Your task to perform on an android device: What's the news in Bolivia? Image 0: 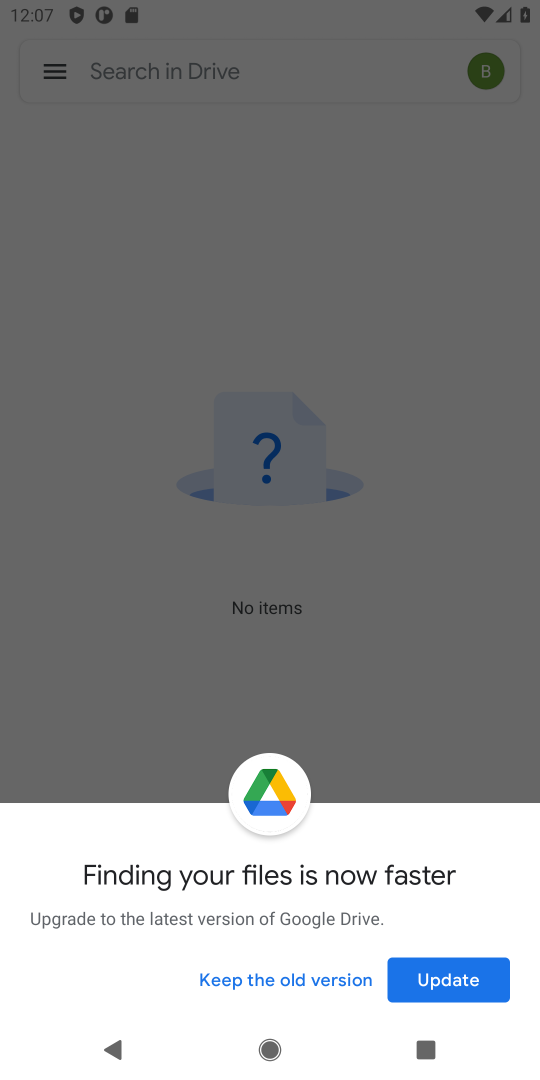
Step 0: press home button
Your task to perform on an android device: What's the news in Bolivia? Image 1: 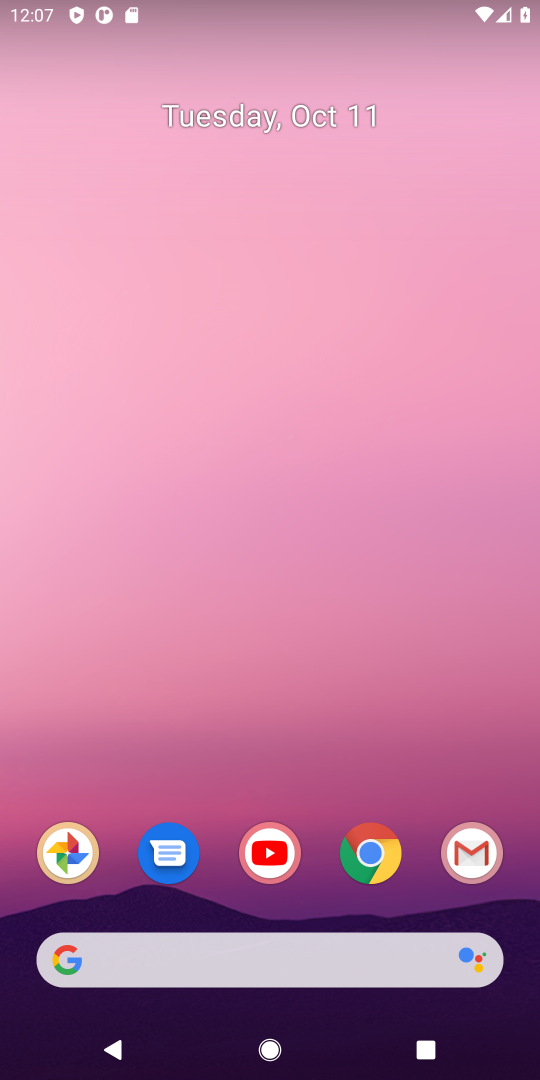
Step 1: drag from (274, 854) to (264, 33)
Your task to perform on an android device: What's the news in Bolivia? Image 2: 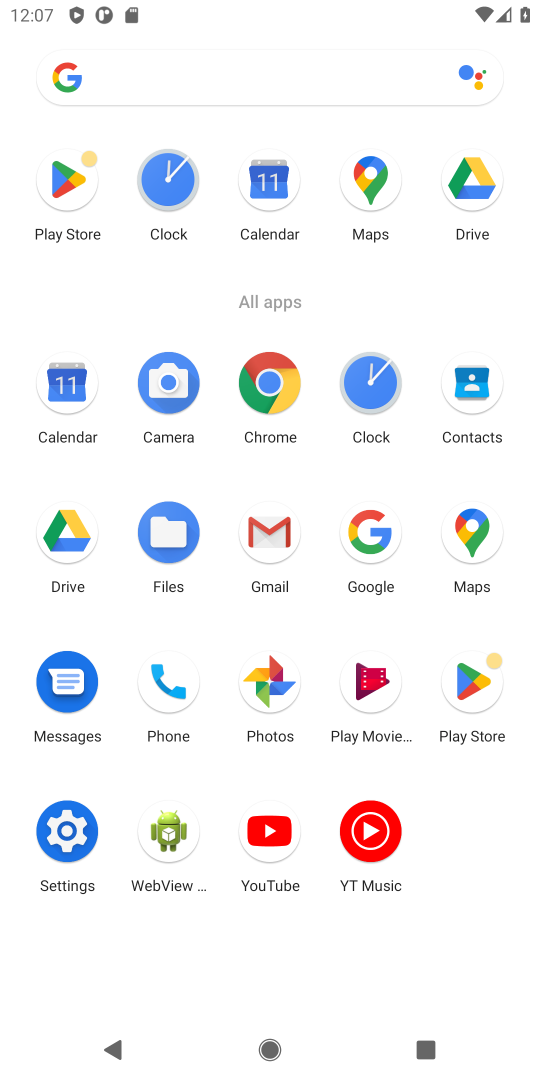
Step 2: click (279, 389)
Your task to perform on an android device: What's the news in Bolivia? Image 3: 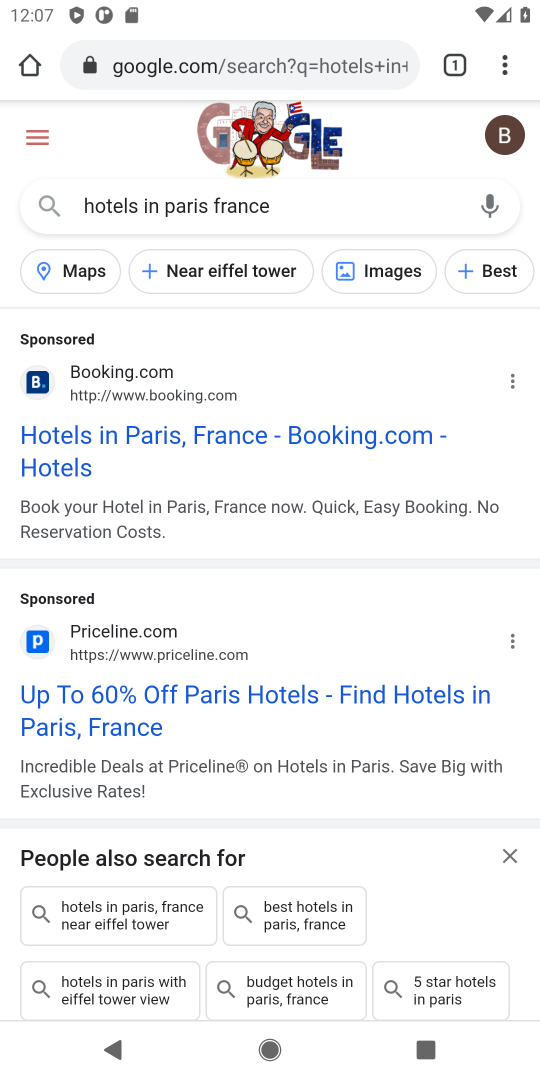
Step 3: click (222, 55)
Your task to perform on an android device: What's the news in Bolivia? Image 4: 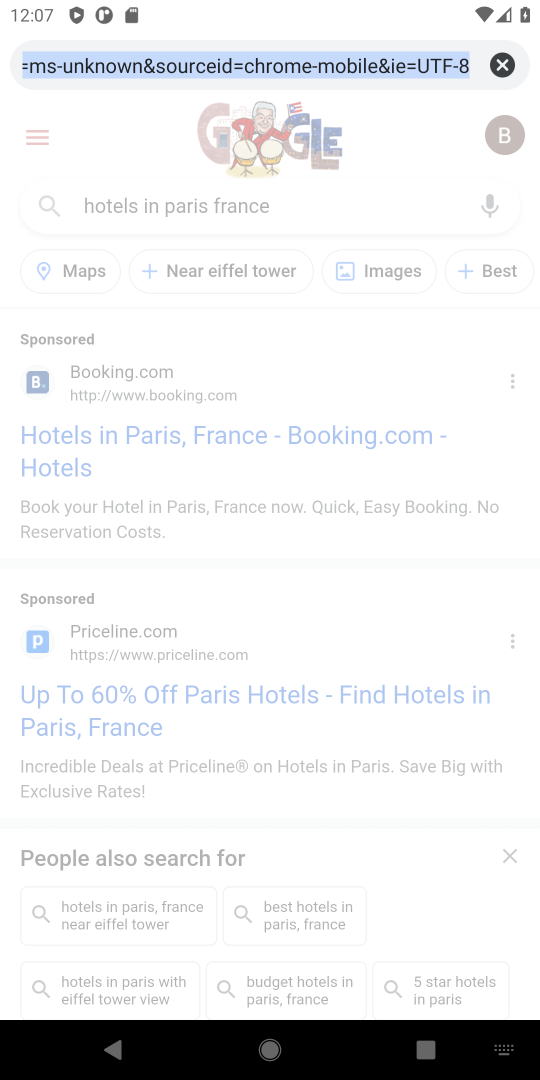
Step 4: type "What's the news in Bolivia?"
Your task to perform on an android device: What's the news in Bolivia? Image 5: 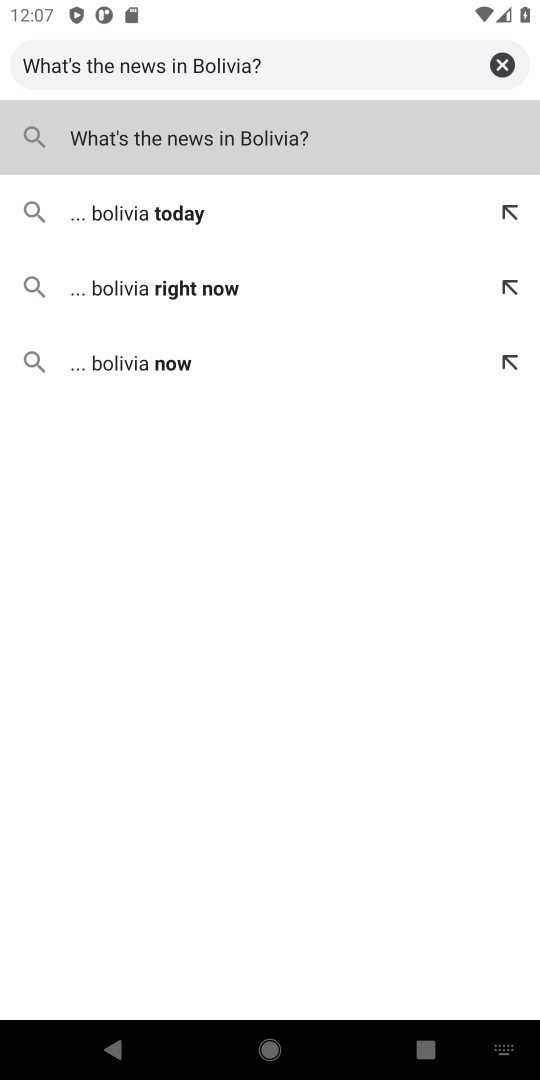
Step 5: type ""
Your task to perform on an android device: What's the news in Bolivia? Image 6: 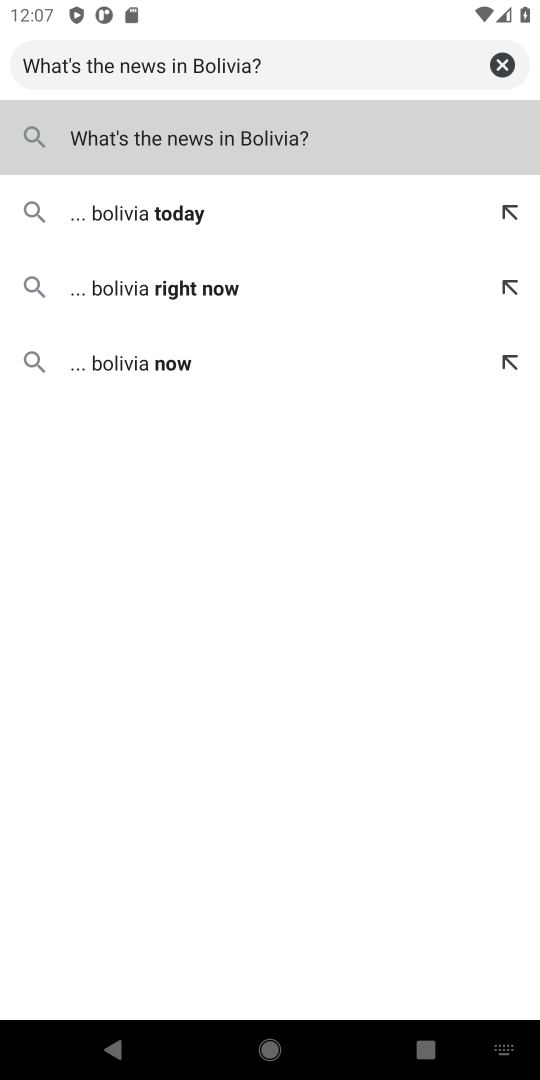
Step 6: press enter
Your task to perform on an android device: What's the news in Bolivia? Image 7: 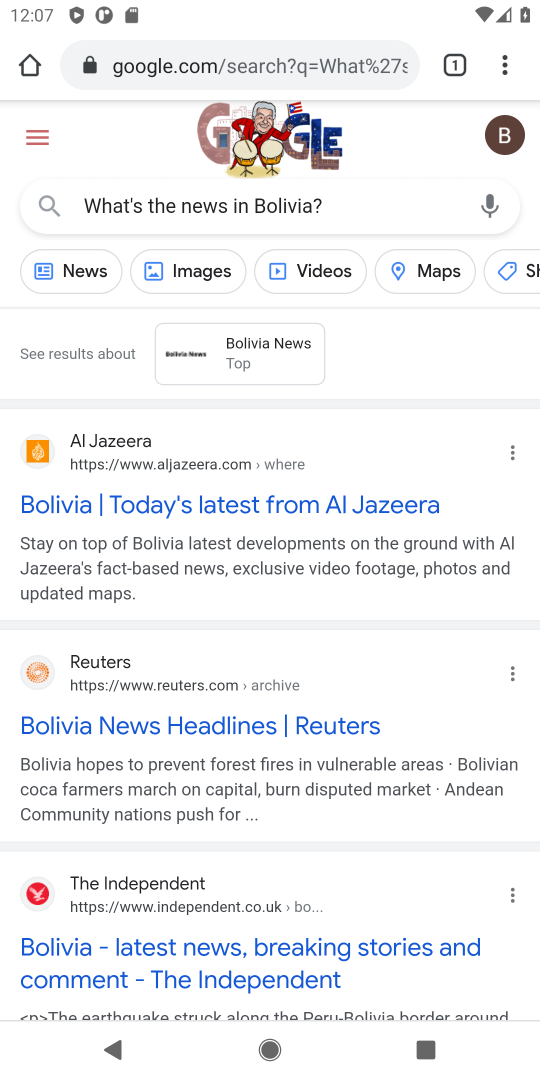
Step 7: click (381, 496)
Your task to perform on an android device: What's the news in Bolivia? Image 8: 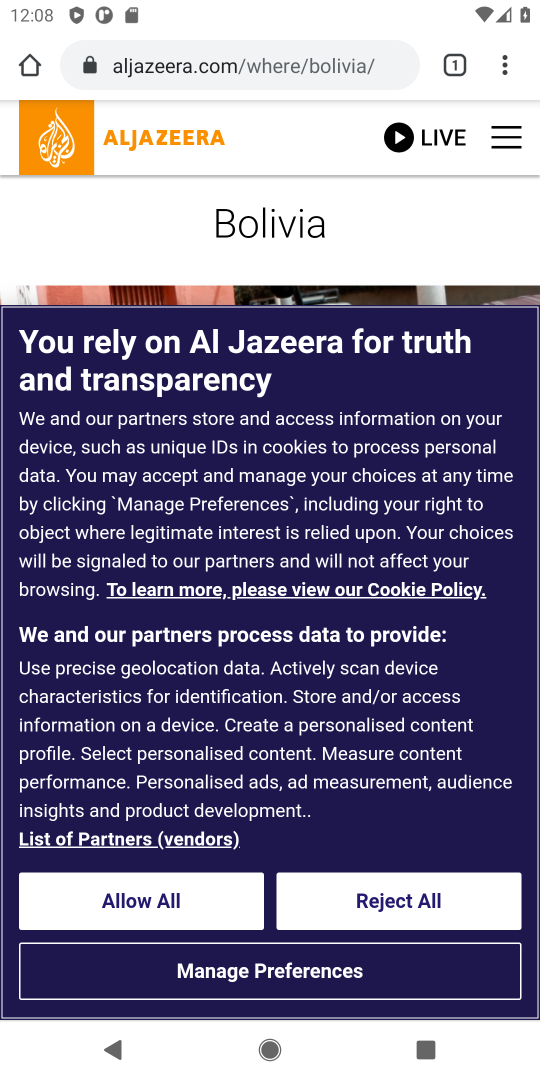
Step 8: click (348, 885)
Your task to perform on an android device: What's the news in Bolivia? Image 9: 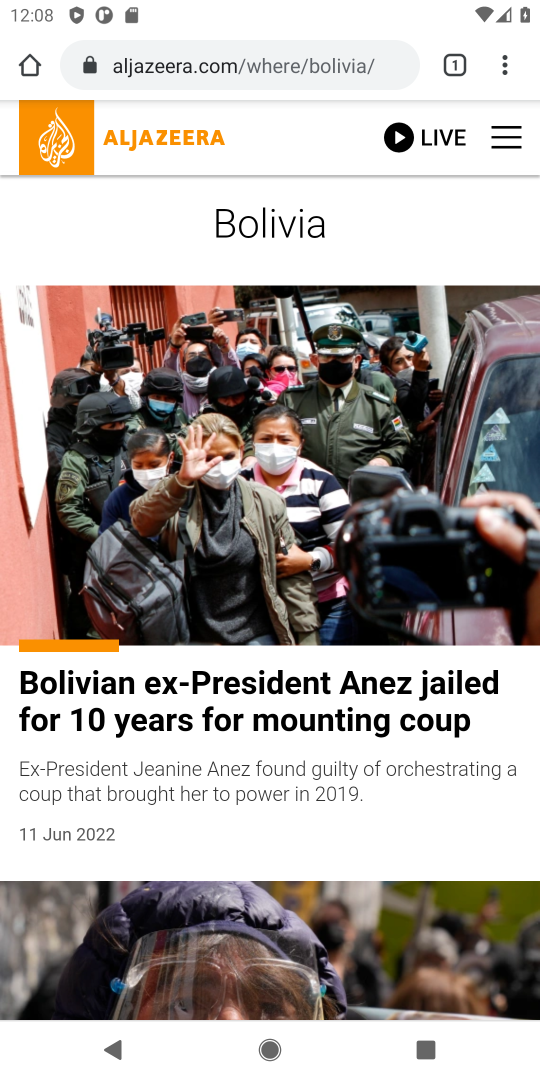
Step 9: drag from (347, 841) to (292, 603)
Your task to perform on an android device: What's the news in Bolivia? Image 10: 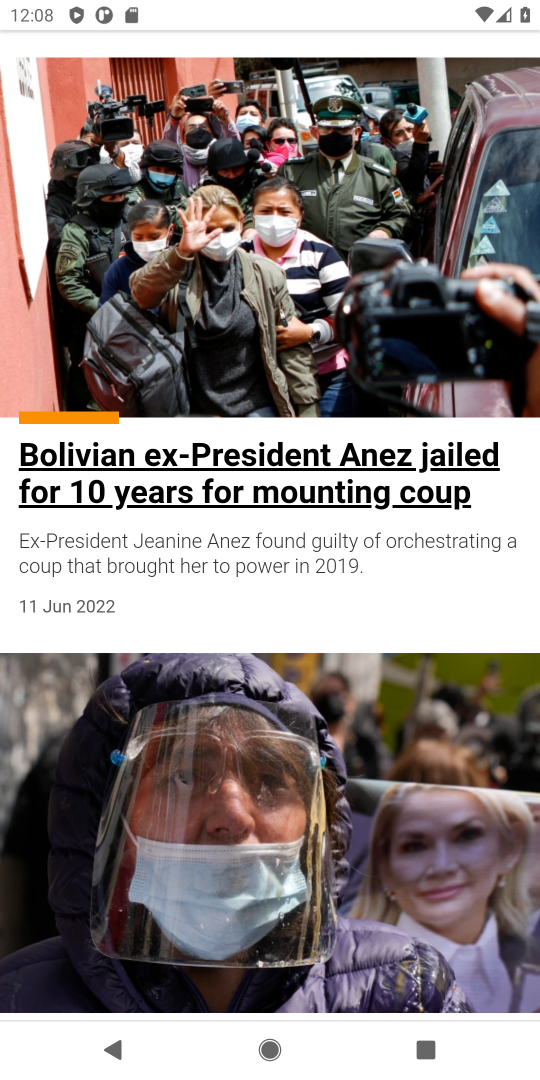
Step 10: drag from (252, 412) to (331, 111)
Your task to perform on an android device: What's the news in Bolivia? Image 11: 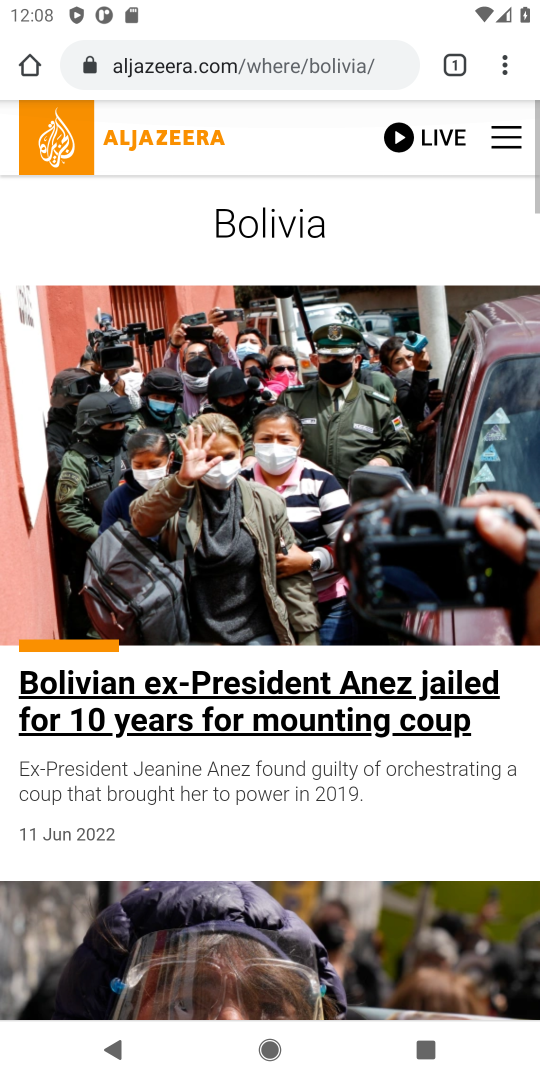
Step 11: click (339, 103)
Your task to perform on an android device: What's the news in Bolivia? Image 12: 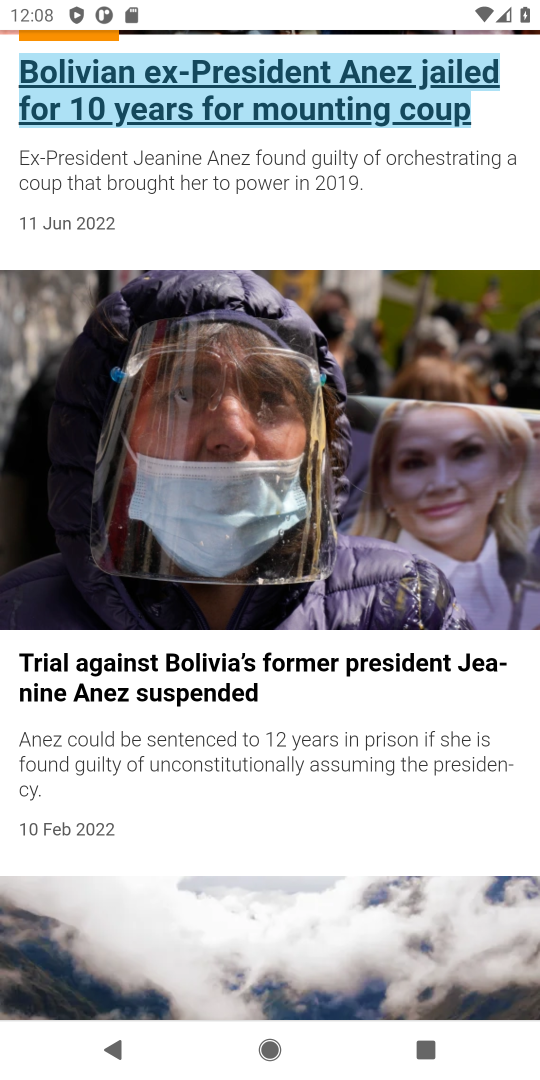
Step 12: drag from (336, 155) to (419, 278)
Your task to perform on an android device: What's the news in Bolivia? Image 13: 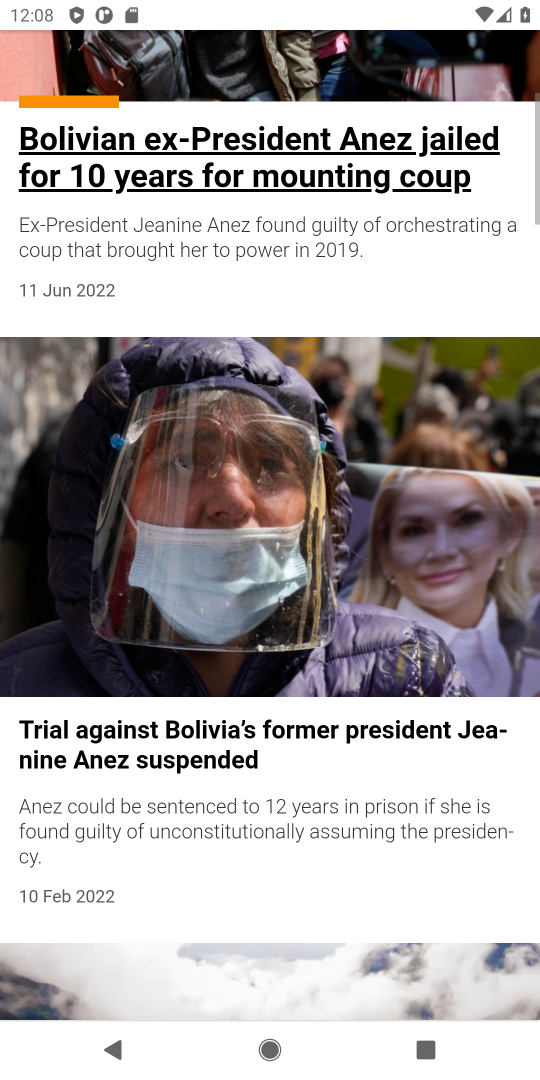
Step 13: click (406, 128)
Your task to perform on an android device: What's the news in Bolivia? Image 14: 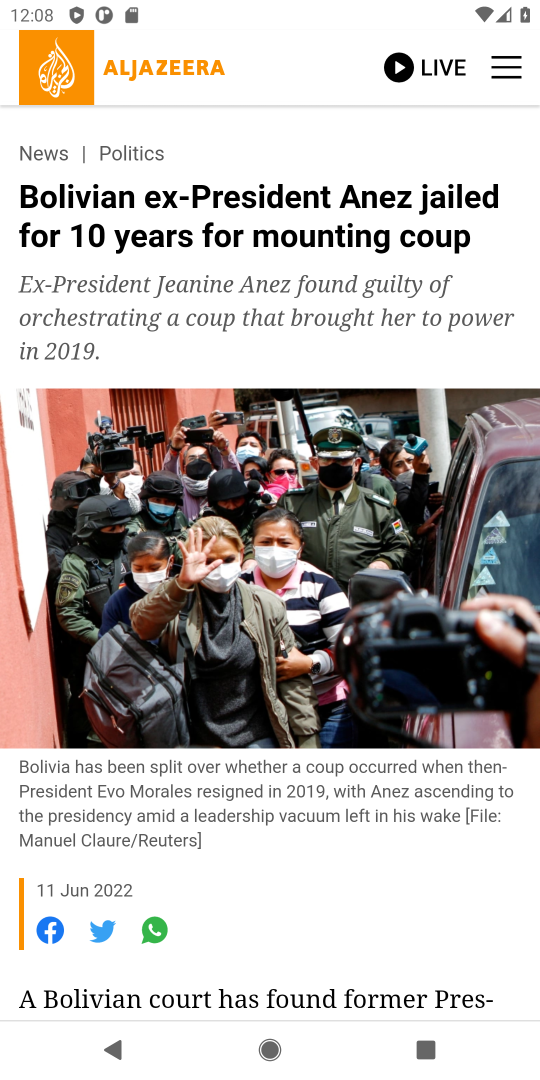
Step 14: drag from (345, 579) to (239, 208)
Your task to perform on an android device: What's the news in Bolivia? Image 15: 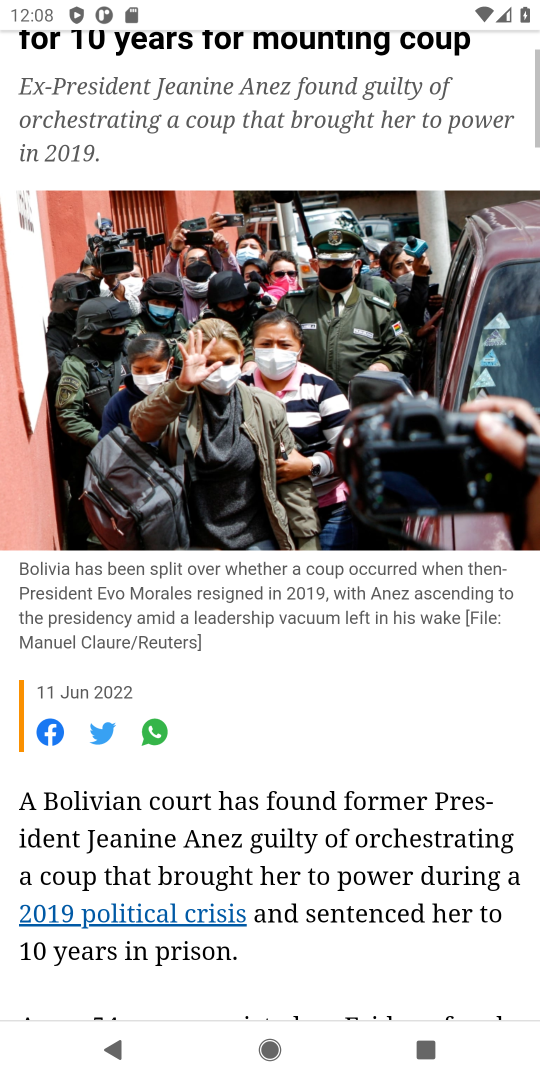
Step 15: click (276, 213)
Your task to perform on an android device: What's the news in Bolivia? Image 16: 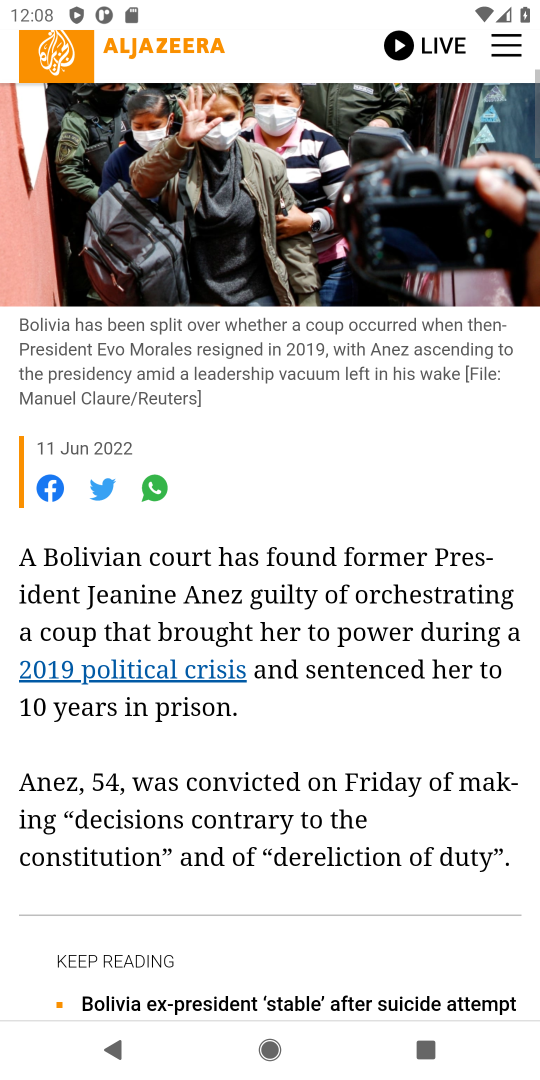
Step 16: drag from (282, 566) to (262, 243)
Your task to perform on an android device: What's the news in Bolivia? Image 17: 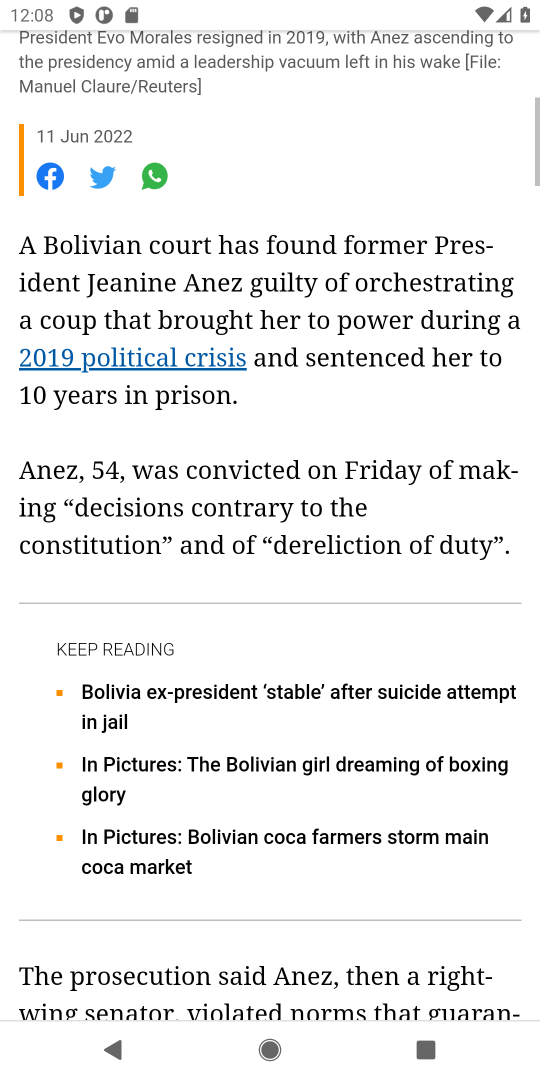
Step 17: drag from (260, 473) to (255, 196)
Your task to perform on an android device: What's the news in Bolivia? Image 18: 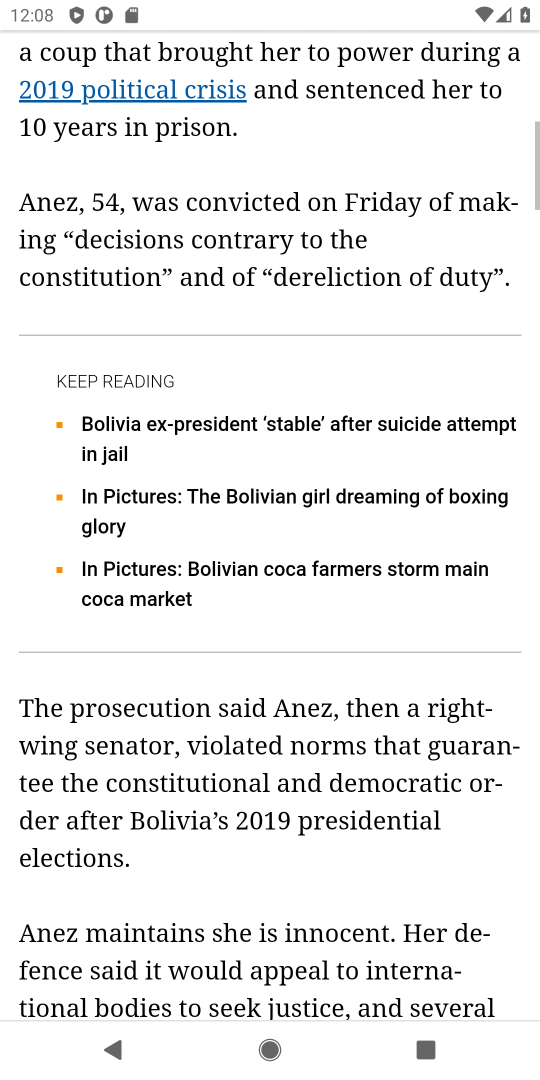
Step 18: drag from (276, 537) to (311, 294)
Your task to perform on an android device: What's the news in Bolivia? Image 19: 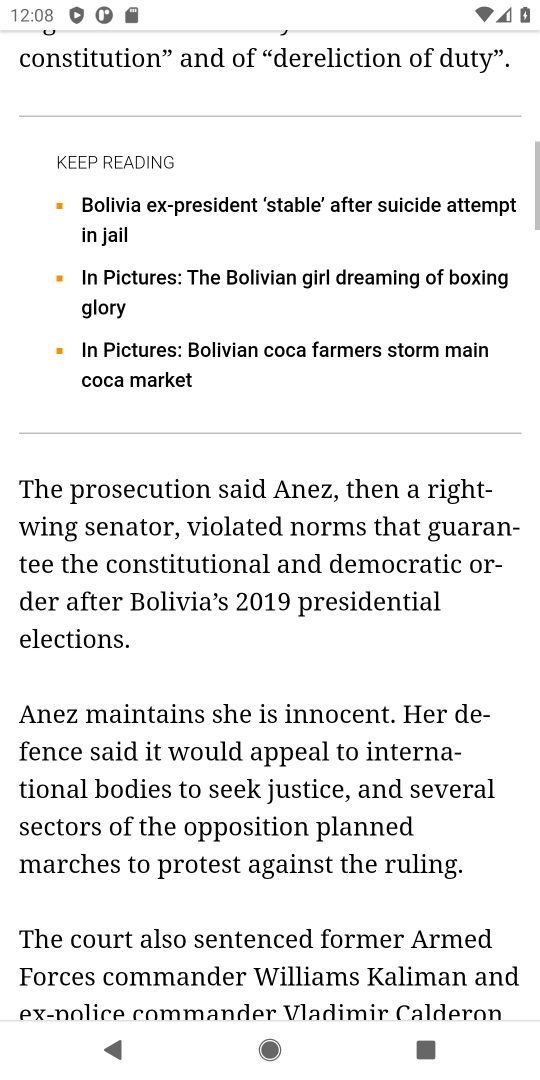
Step 19: drag from (332, 535) to (351, 299)
Your task to perform on an android device: What's the news in Bolivia? Image 20: 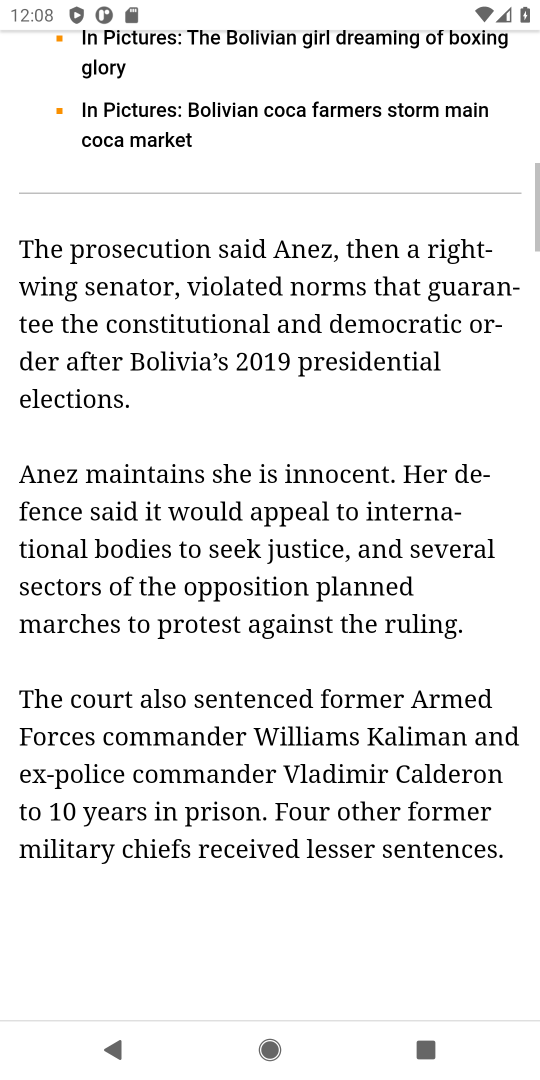
Step 20: drag from (380, 343) to (398, 258)
Your task to perform on an android device: What's the news in Bolivia? Image 21: 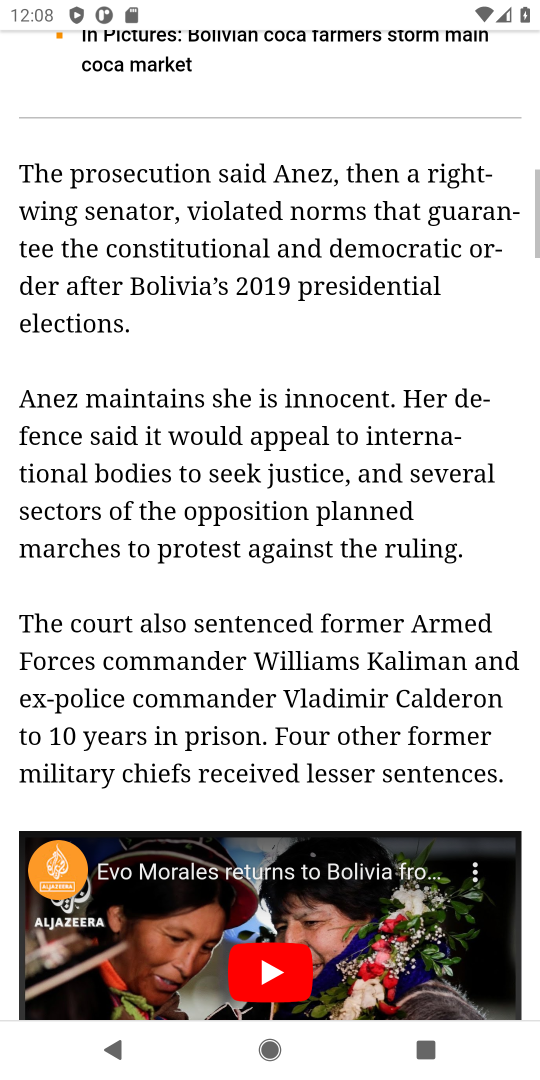
Step 21: drag from (363, 356) to (352, 259)
Your task to perform on an android device: What's the news in Bolivia? Image 22: 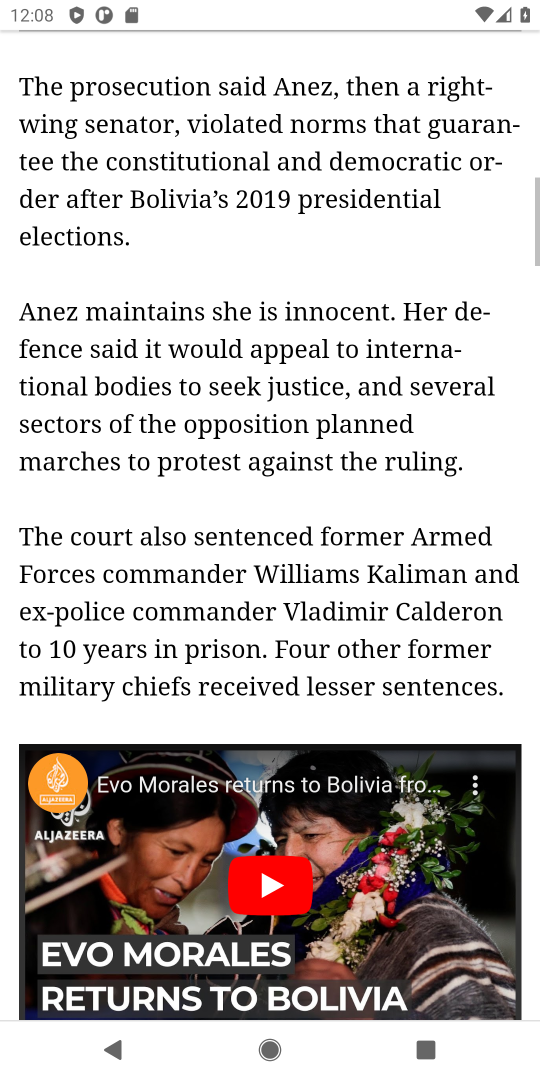
Step 22: drag from (356, 431) to (352, 237)
Your task to perform on an android device: What's the news in Bolivia? Image 23: 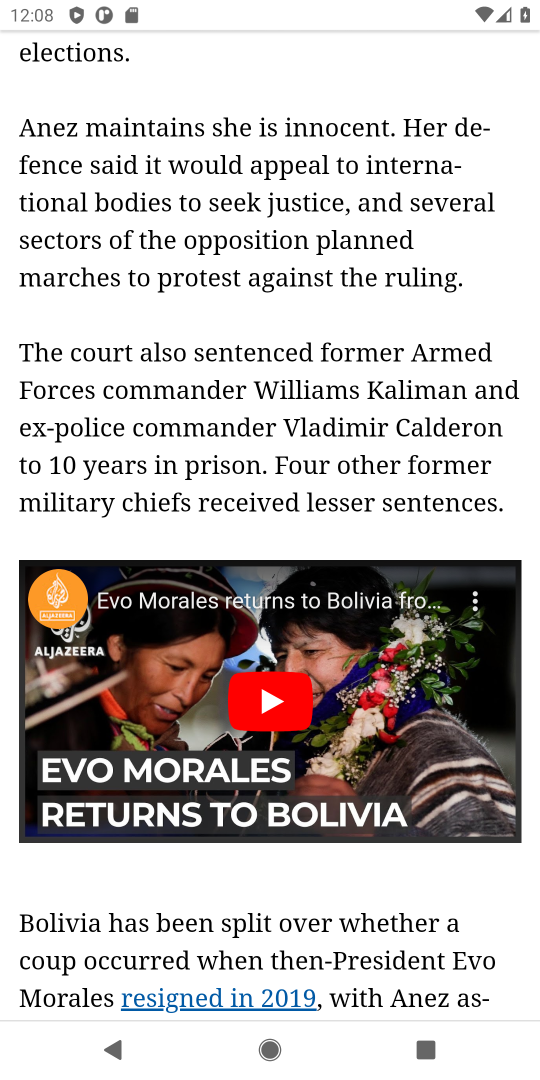
Step 23: drag from (393, 636) to (357, 181)
Your task to perform on an android device: What's the news in Bolivia? Image 24: 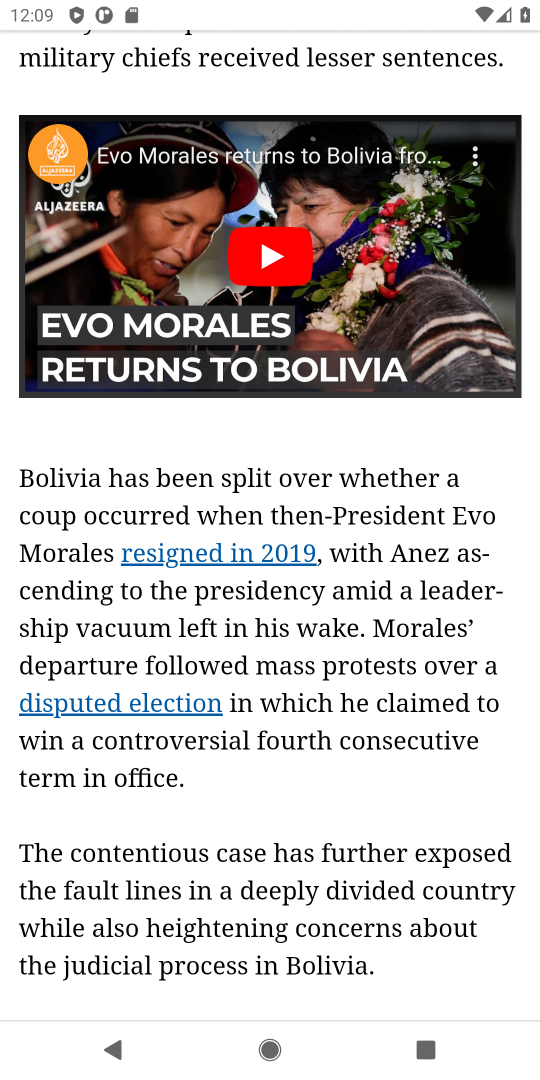
Step 24: drag from (179, 698) to (209, 500)
Your task to perform on an android device: What's the news in Bolivia? Image 25: 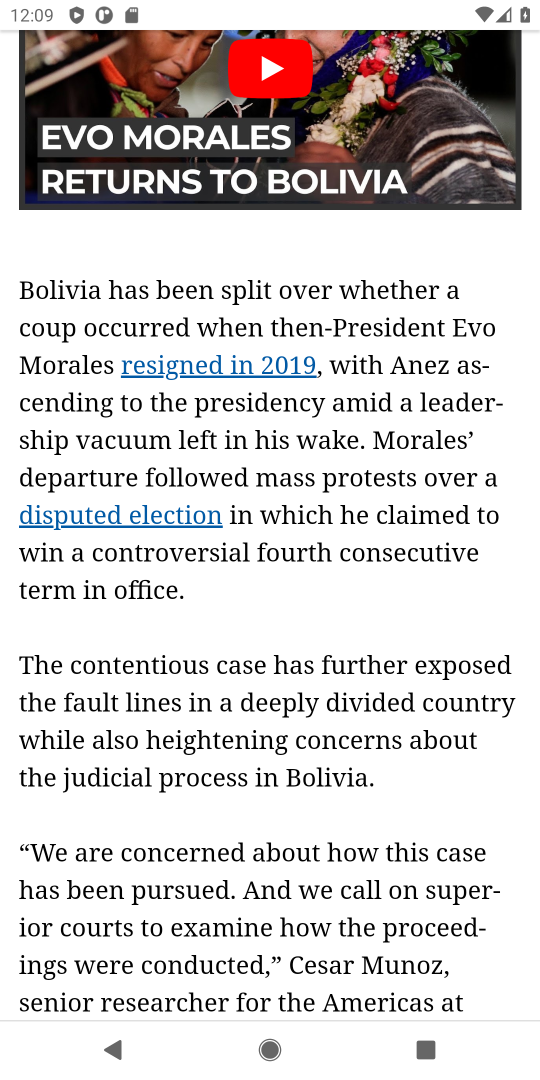
Step 25: drag from (234, 681) to (259, 373)
Your task to perform on an android device: What's the news in Bolivia? Image 26: 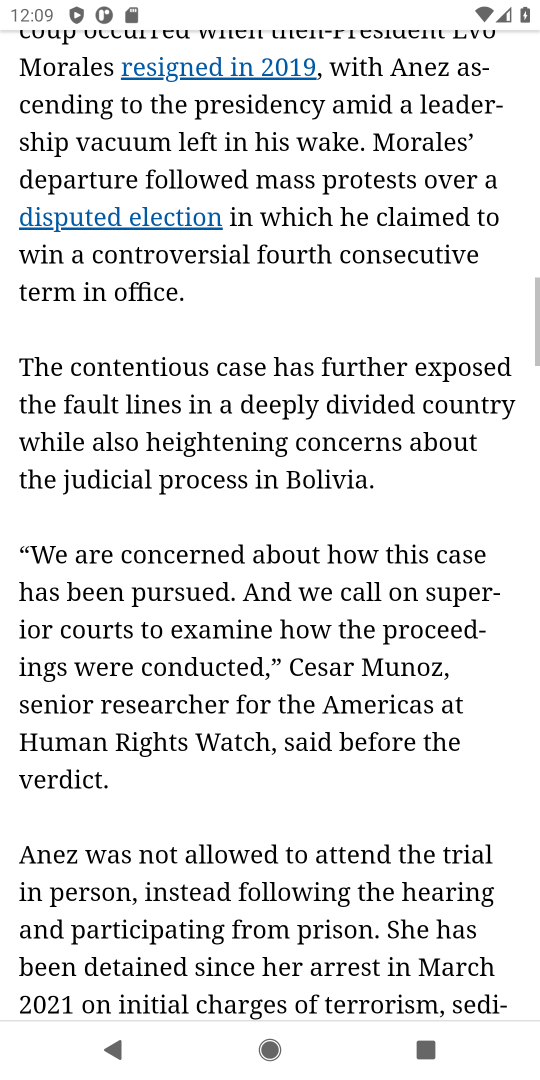
Step 26: drag from (264, 606) to (264, 408)
Your task to perform on an android device: What's the news in Bolivia? Image 27: 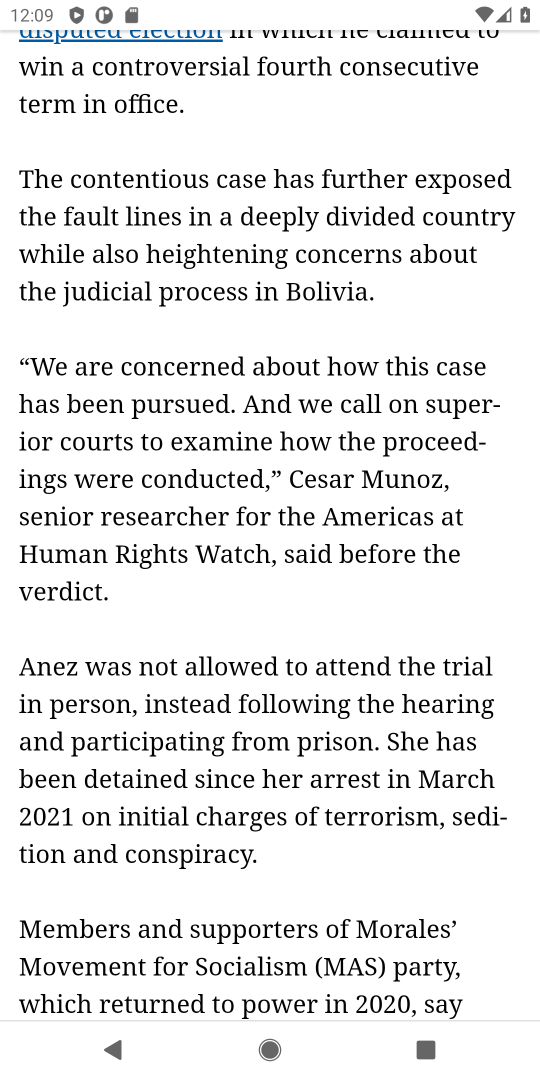
Step 27: drag from (257, 827) to (278, 370)
Your task to perform on an android device: What's the news in Bolivia? Image 28: 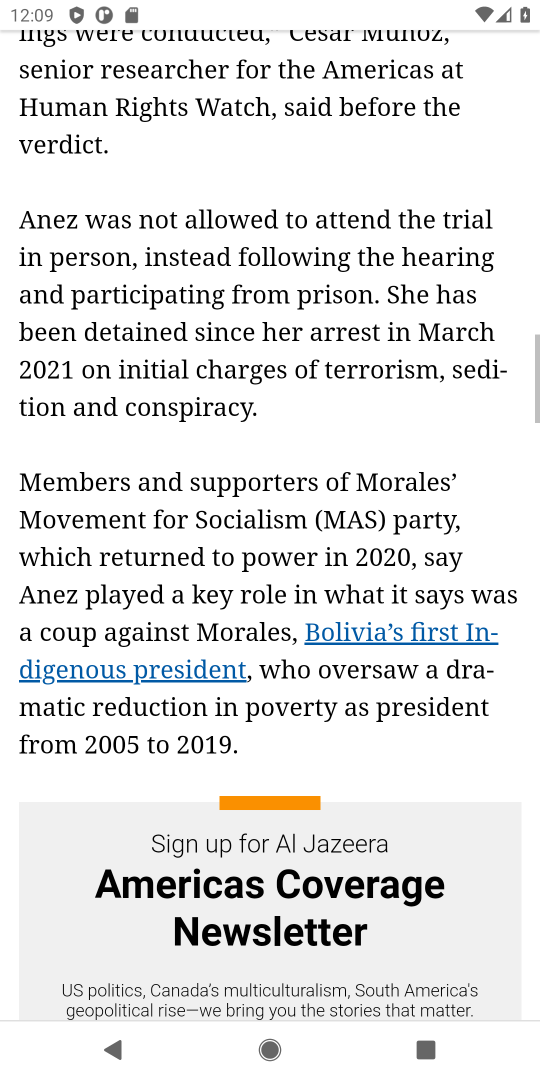
Step 28: click (339, 298)
Your task to perform on an android device: What's the news in Bolivia? Image 29: 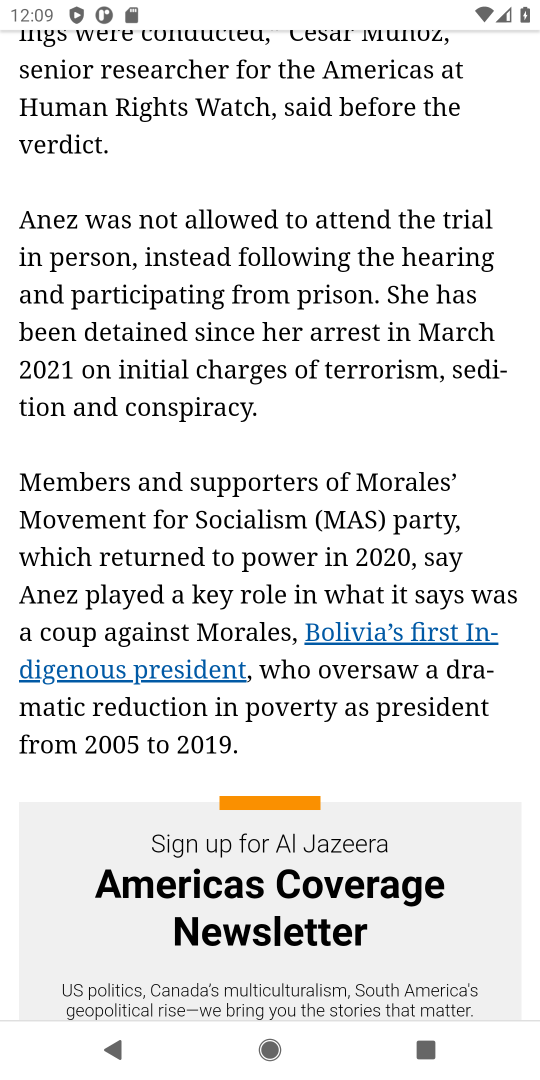
Step 29: drag from (353, 506) to (384, 386)
Your task to perform on an android device: What's the news in Bolivia? Image 30: 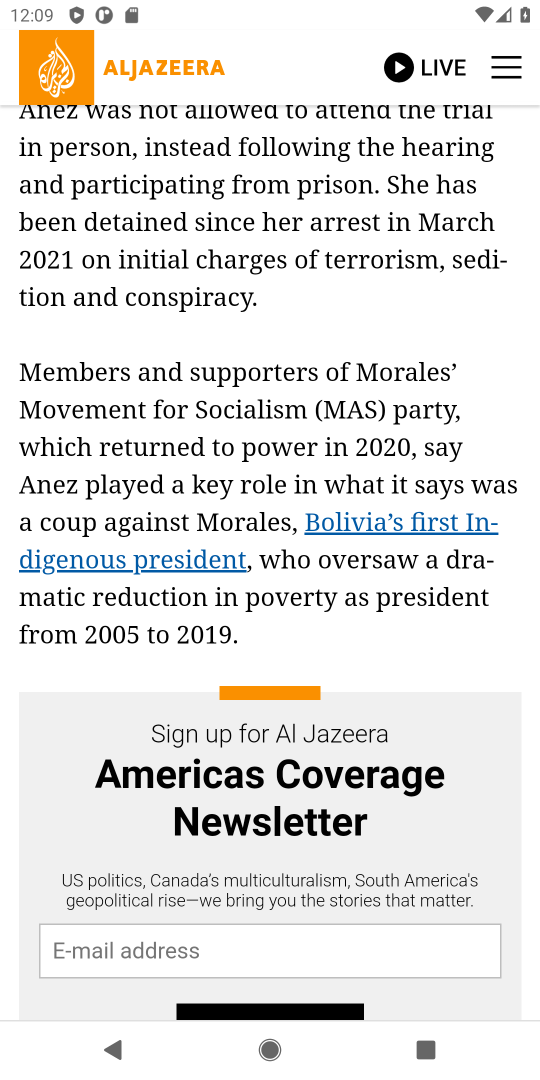
Step 30: drag from (380, 261) to (338, 769)
Your task to perform on an android device: What's the news in Bolivia? Image 31: 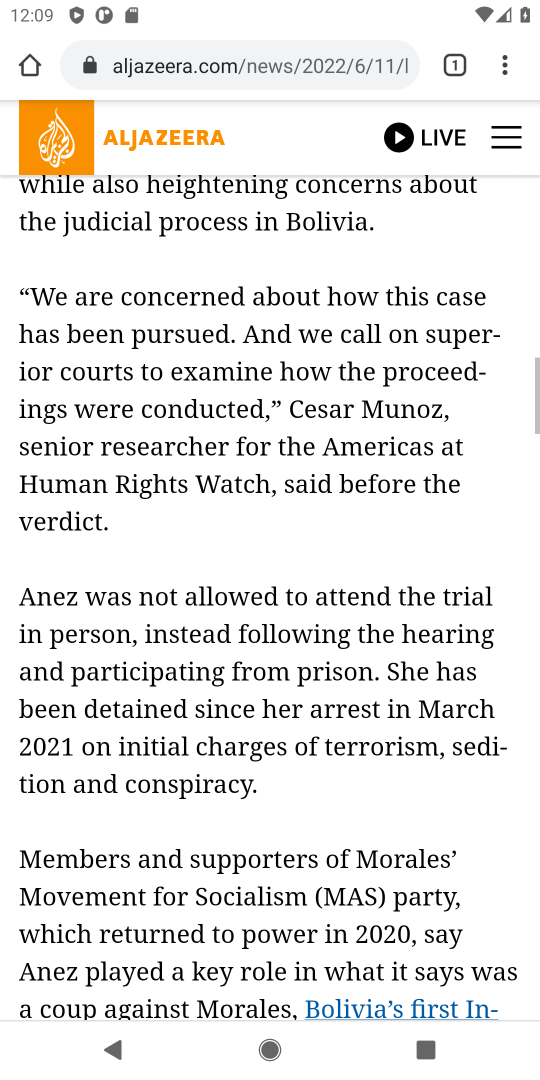
Step 31: drag from (394, 236) to (265, 747)
Your task to perform on an android device: What's the news in Bolivia? Image 32: 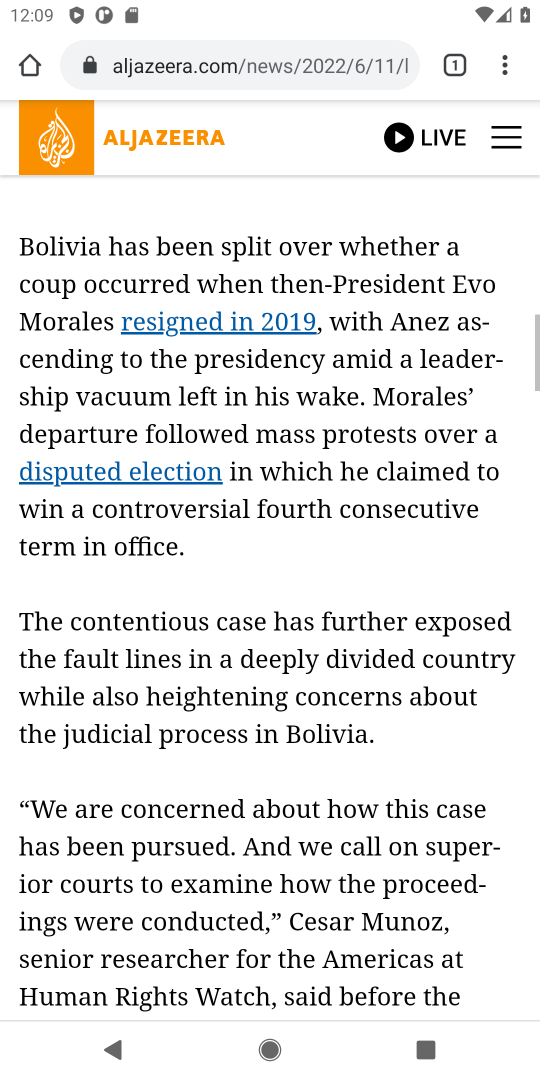
Step 32: drag from (313, 535) to (278, 793)
Your task to perform on an android device: What's the news in Bolivia? Image 33: 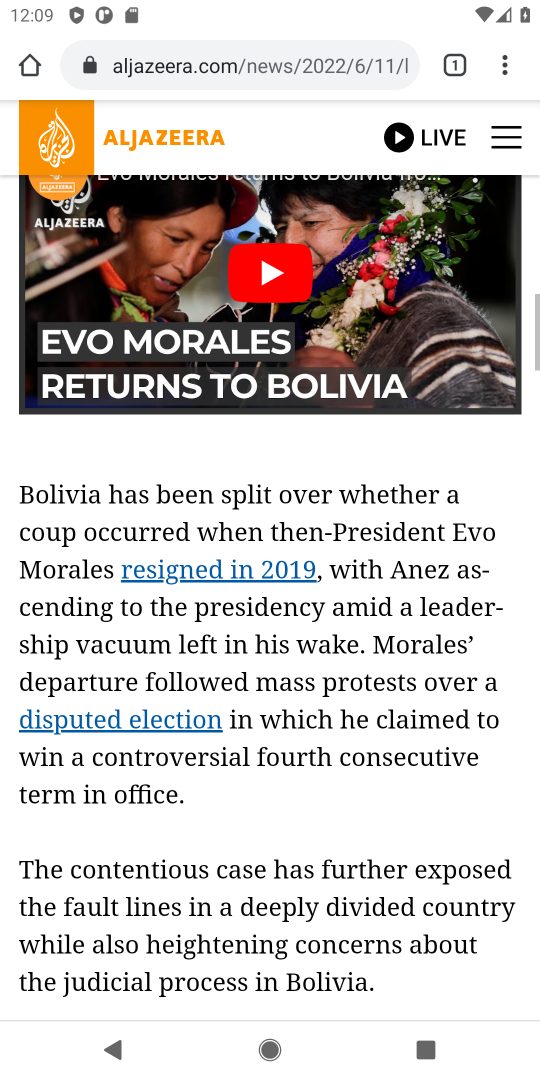
Step 33: drag from (272, 465) to (246, 627)
Your task to perform on an android device: What's the news in Bolivia? Image 34: 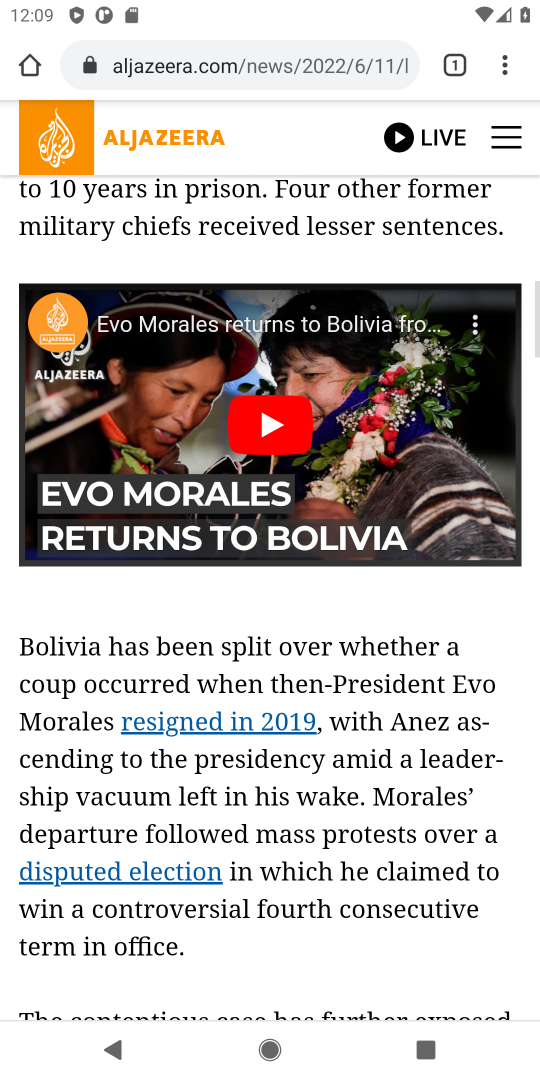
Step 34: press back button
Your task to perform on an android device: What's the news in Bolivia? Image 35: 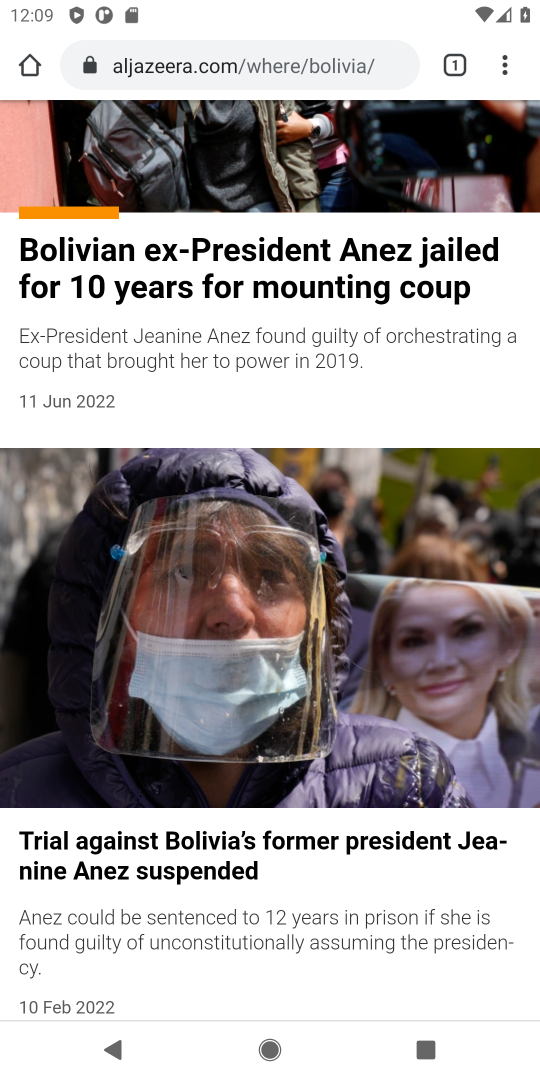
Step 35: drag from (391, 356) to (303, 758)
Your task to perform on an android device: What's the news in Bolivia? Image 36: 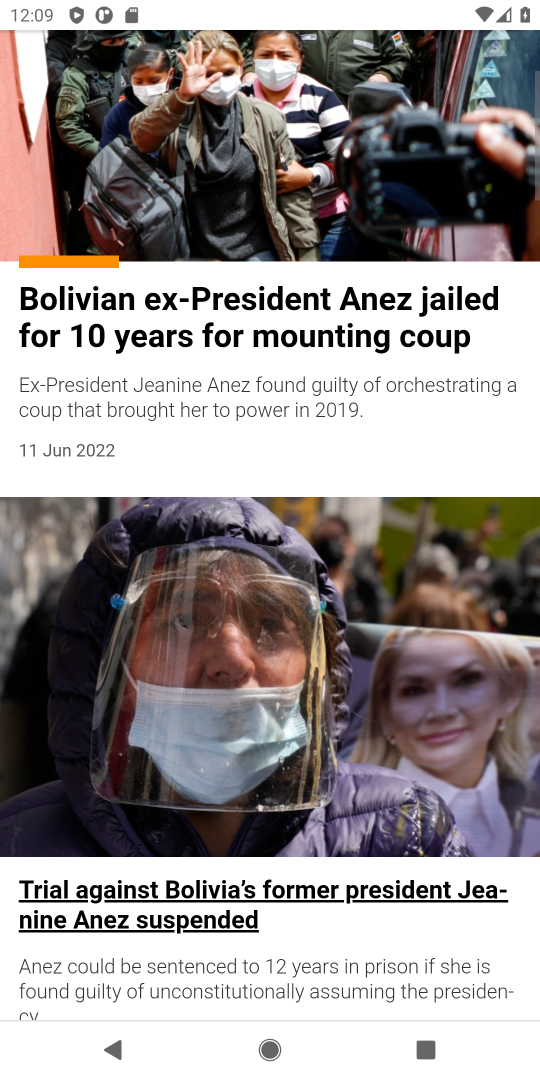
Step 36: click (287, 634)
Your task to perform on an android device: What's the news in Bolivia? Image 37: 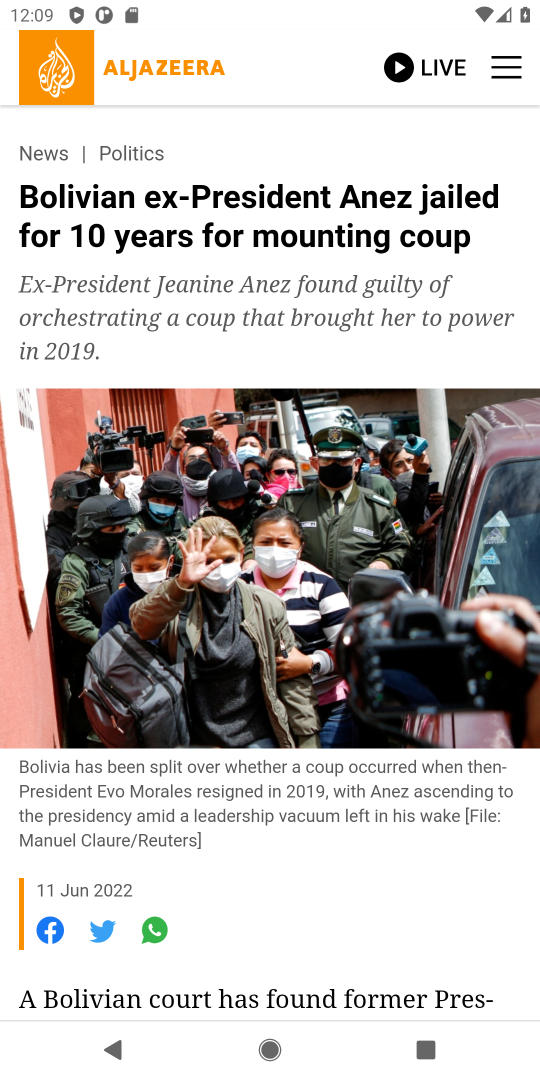
Step 37: drag from (301, 368) to (333, 702)
Your task to perform on an android device: What's the news in Bolivia? Image 38: 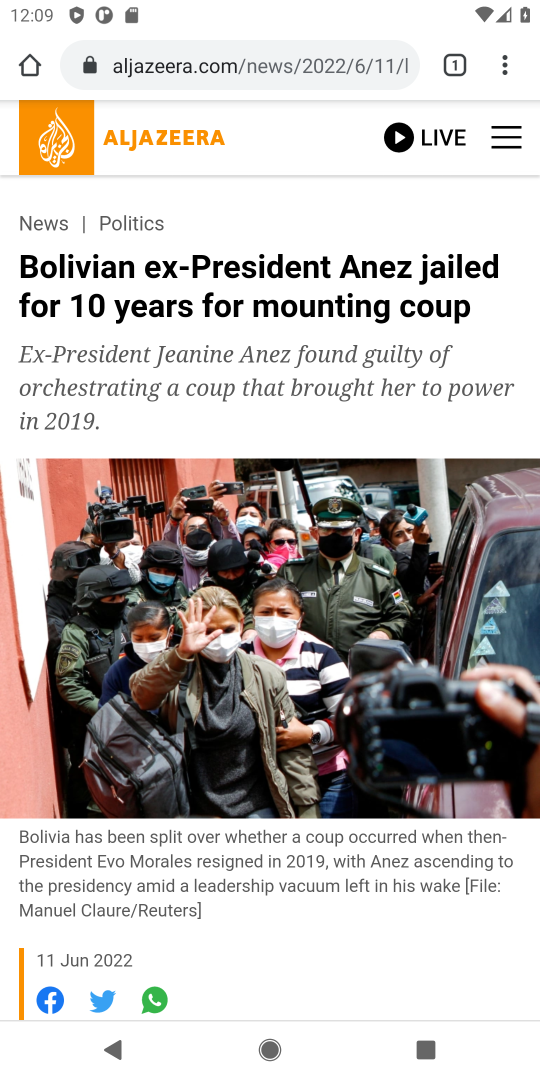
Step 38: drag from (331, 387) to (350, 713)
Your task to perform on an android device: What's the news in Bolivia? Image 39: 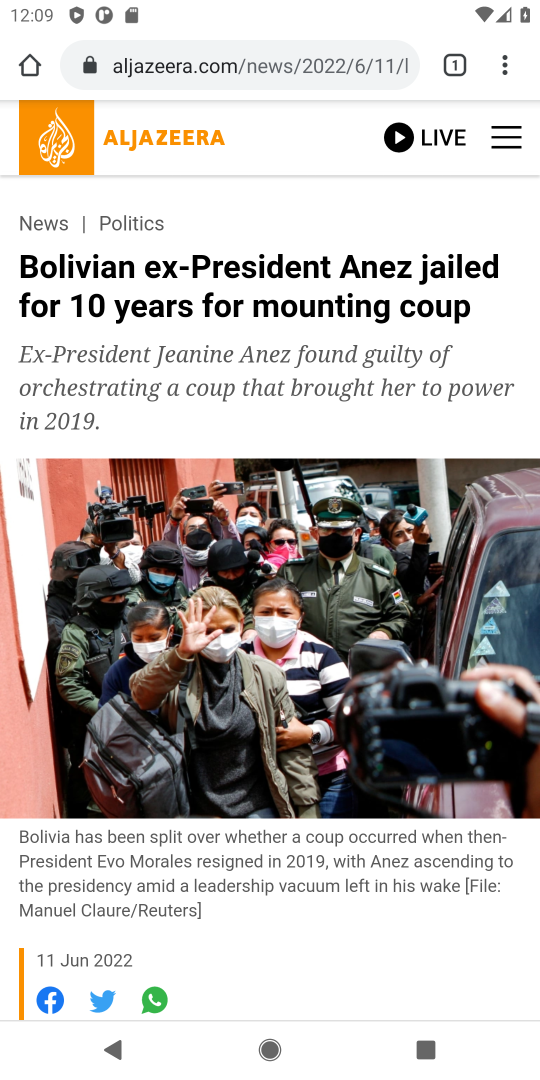
Step 39: drag from (340, 636) to (407, 798)
Your task to perform on an android device: What's the news in Bolivia? Image 40: 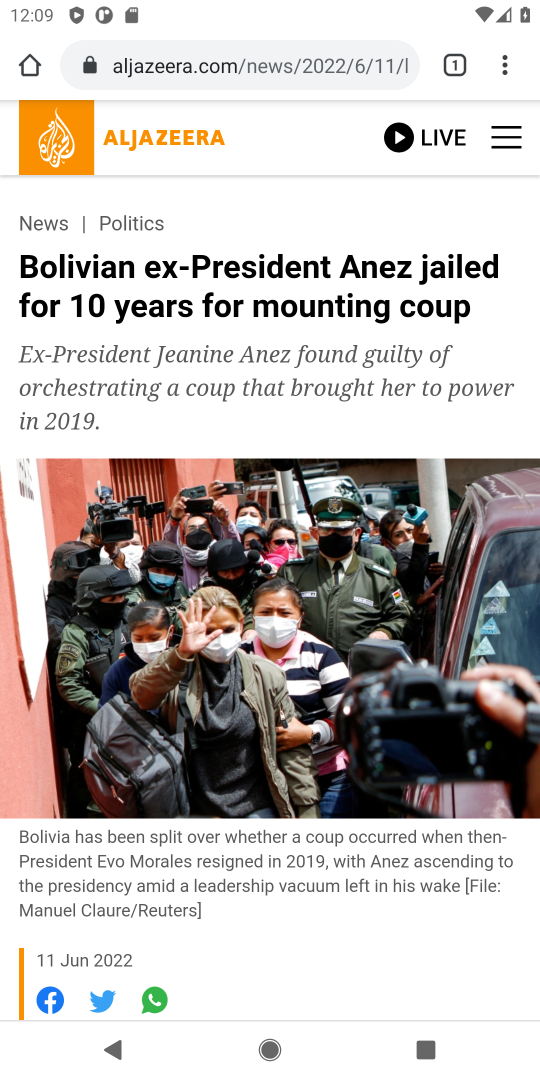
Step 40: drag from (427, 709) to (481, 695)
Your task to perform on an android device: What's the news in Bolivia? Image 41: 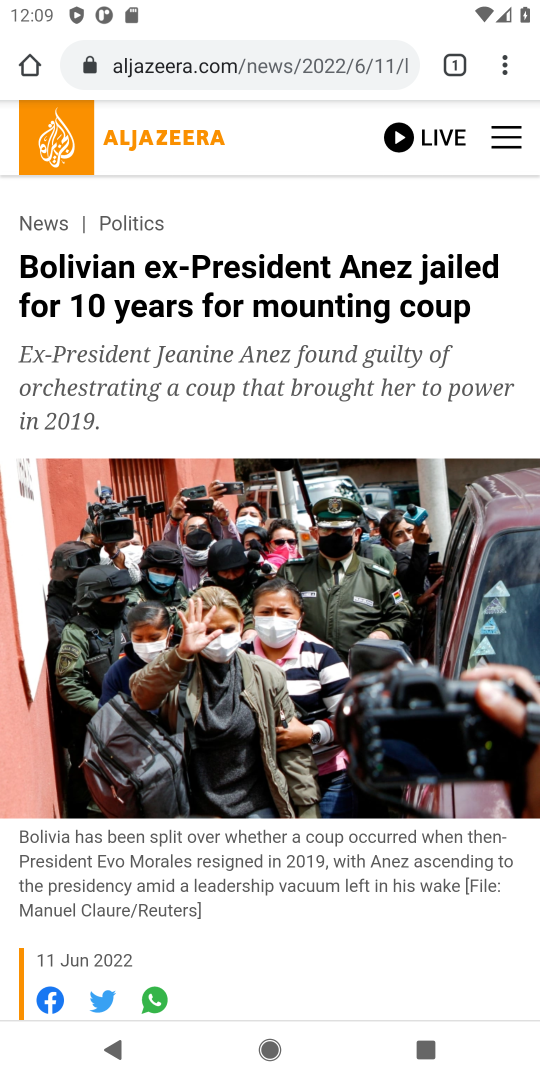
Step 41: press back button
Your task to perform on an android device: What's the news in Bolivia? Image 42: 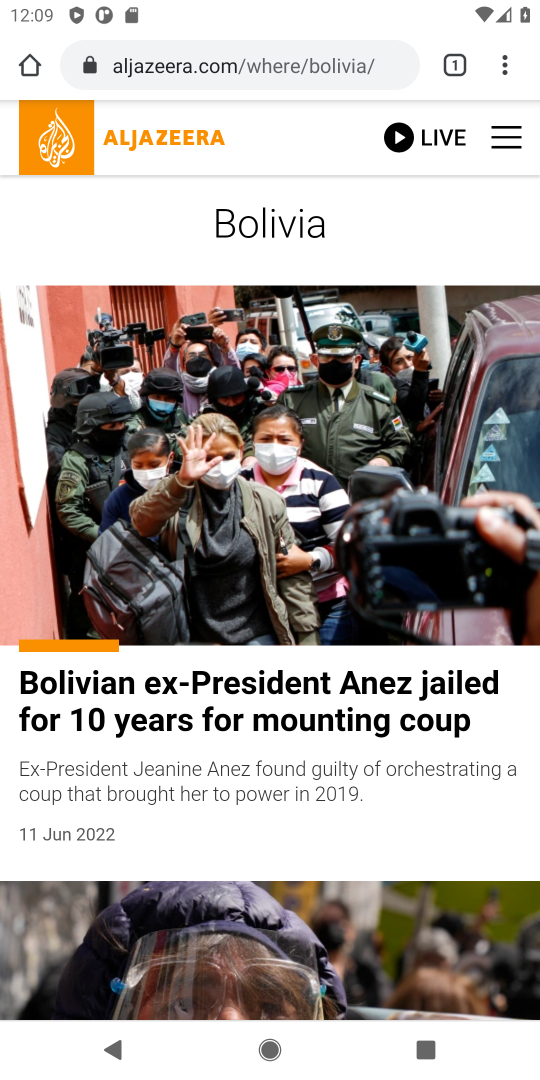
Step 42: drag from (345, 908) to (310, 335)
Your task to perform on an android device: What's the news in Bolivia? Image 43: 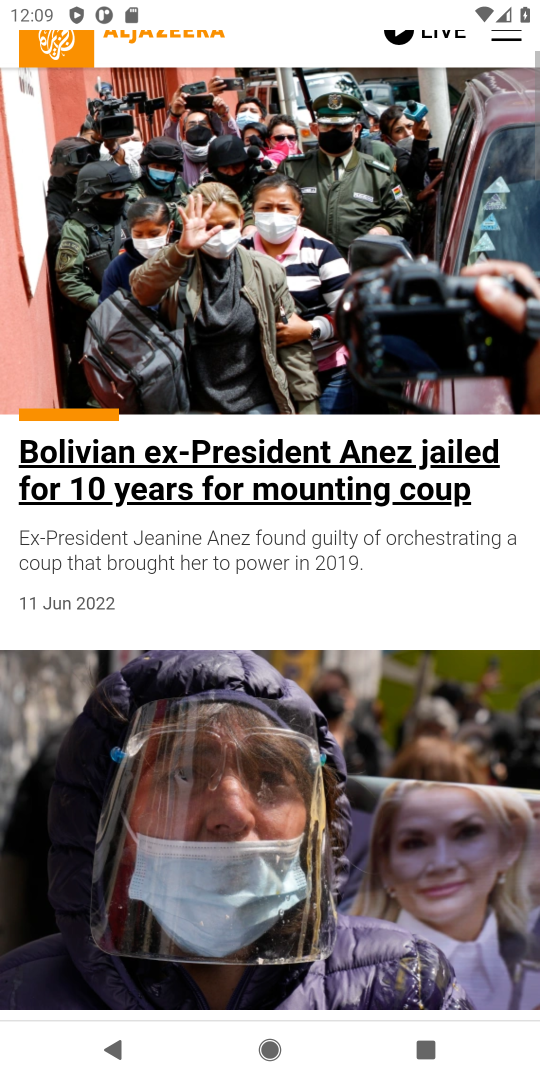
Step 43: click (290, 357)
Your task to perform on an android device: What's the news in Bolivia? Image 44: 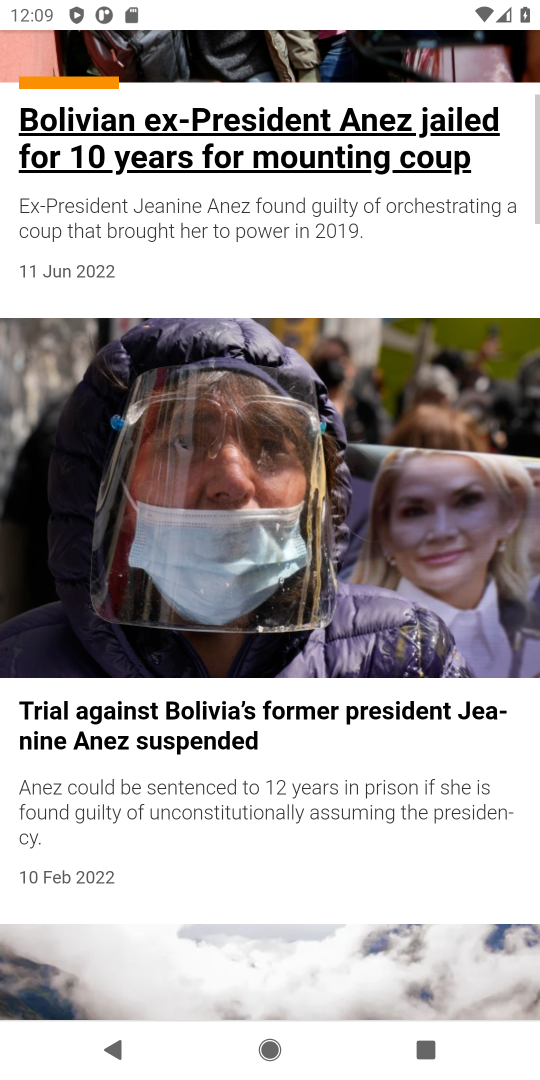
Step 44: click (292, 324)
Your task to perform on an android device: What's the news in Bolivia? Image 45: 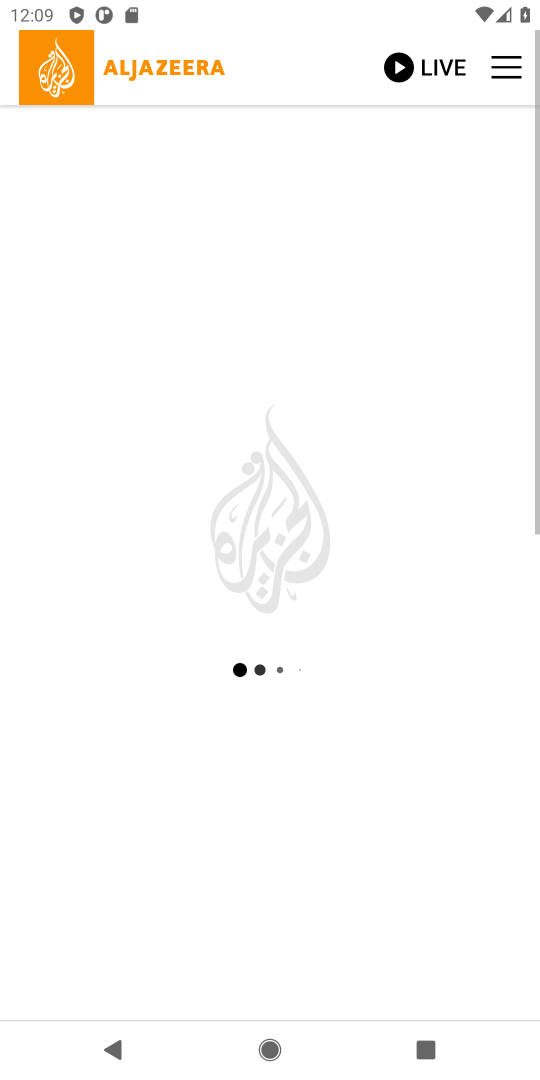
Step 45: drag from (317, 697) to (327, 337)
Your task to perform on an android device: What's the news in Bolivia? Image 46: 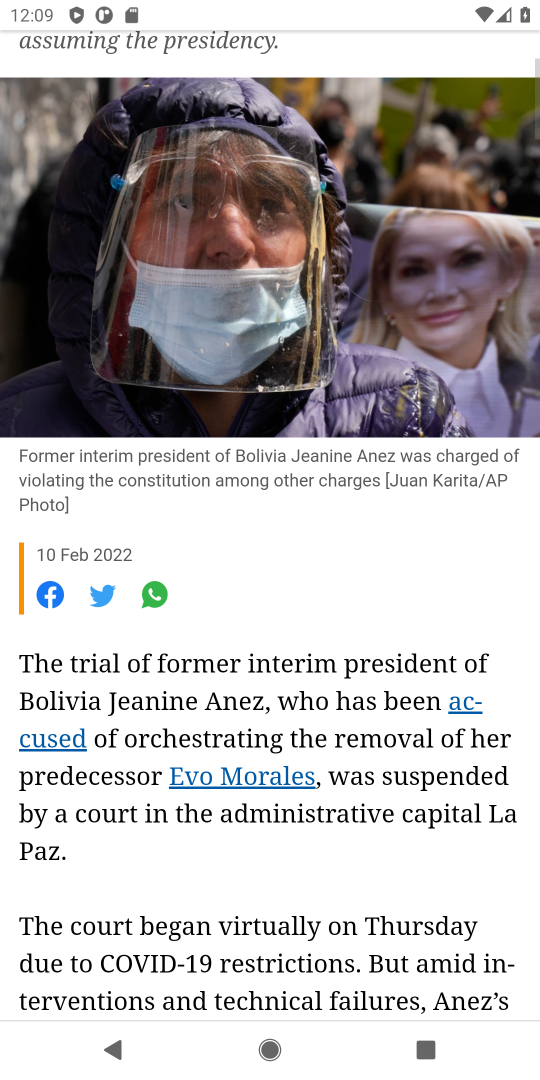
Step 46: press back button
Your task to perform on an android device: What's the news in Bolivia? Image 47: 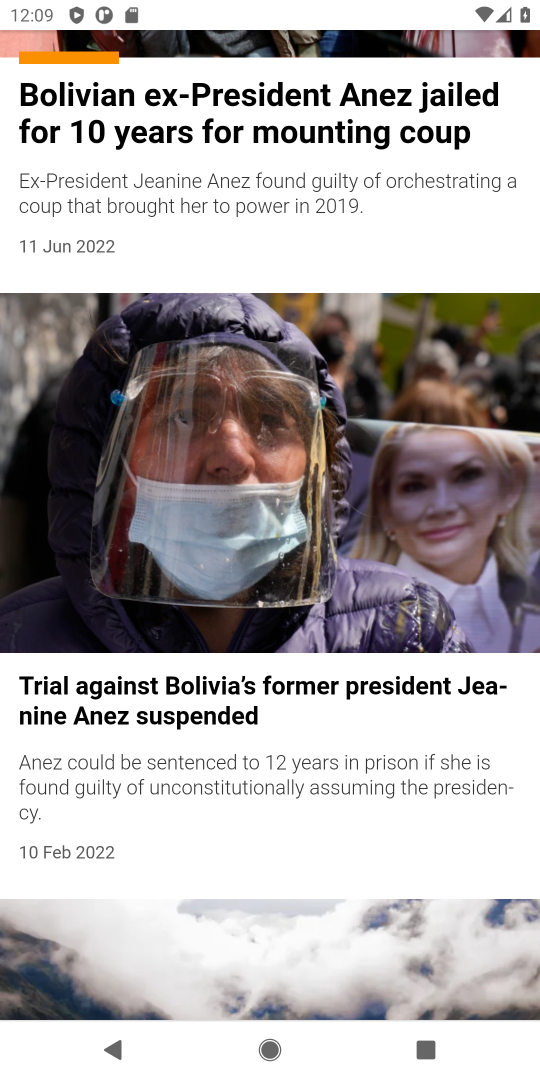
Step 47: press back button
Your task to perform on an android device: What's the news in Bolivia? Image 48: 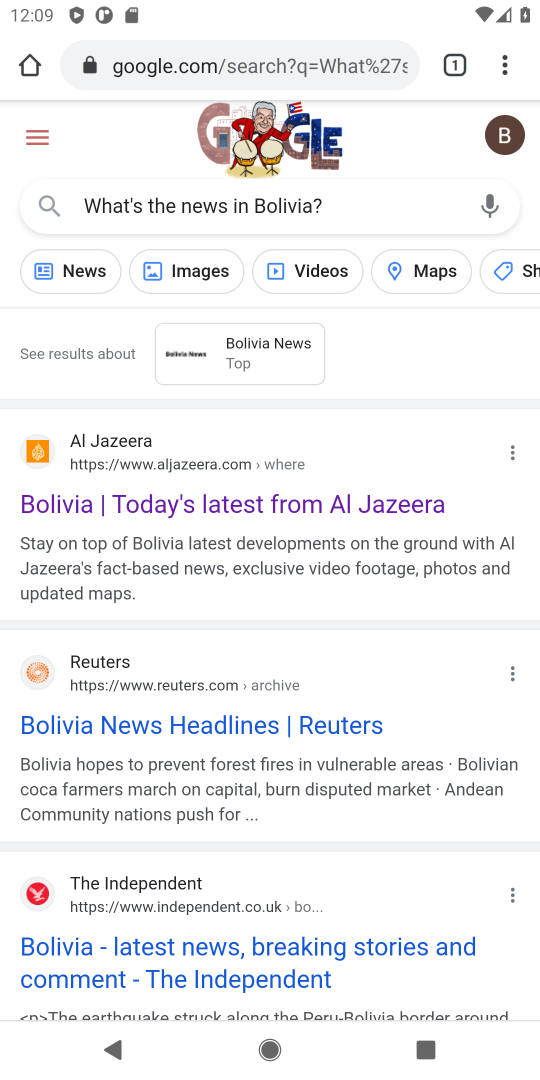
Step 48: click (185, 718)
Your task to perform on an android device: What's the news in Bolivia? Image 49: 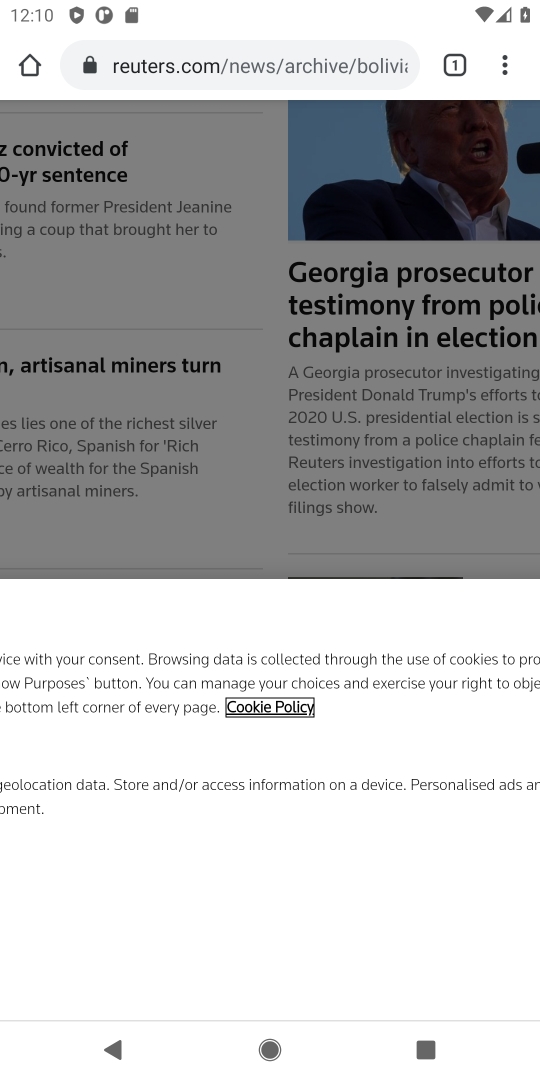
Step 49: drag from (246, 913) to (286, 592)
Your task to perform on an android device: What's the news in Bolivia? Image 50: 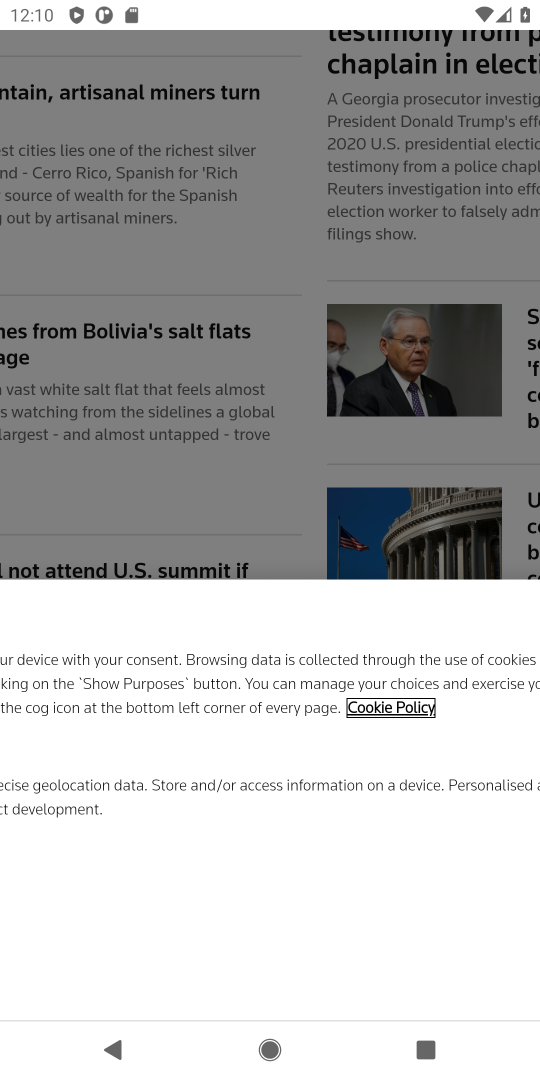
Step 50: click (263, 451)
Your task to perform on an android device: What's the news in Bolivia? Image 51: 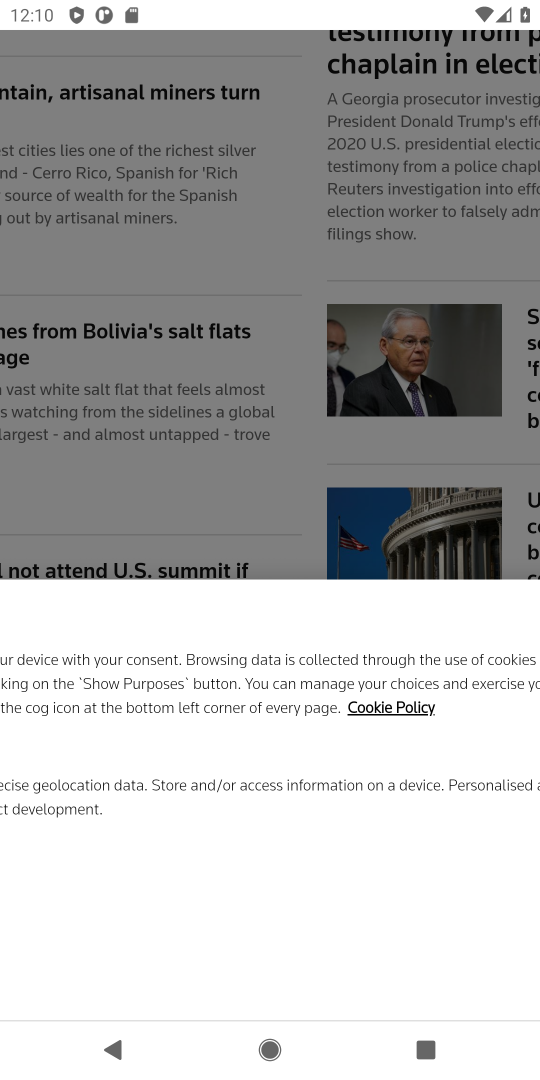
Step 51: task complete